Your task to perform on an android device: change the clock display to digital Image 0: 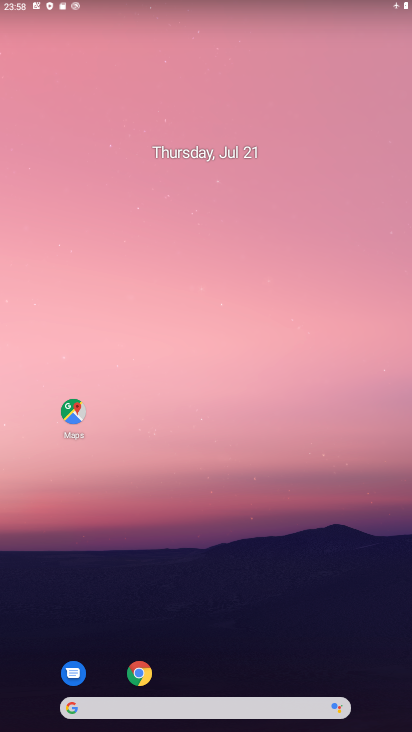
Step 0: drag from (241, 646) to (241, 166)
Your task to perform on an android device: change the clock display to digital Image 1: 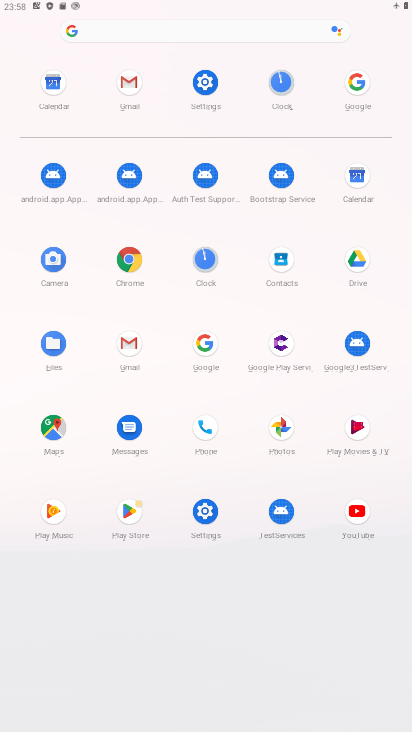
Step 1: click (267, 98)
Your task to perform on an android device: change the clock display to digital Image 2: 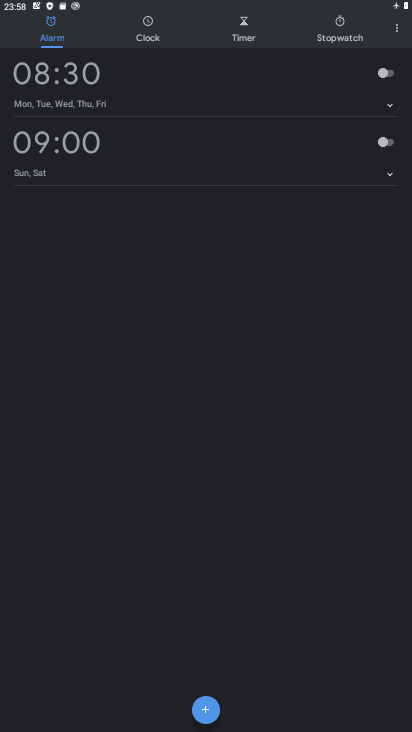
Step 2: click (392, 39)
Your task to perform on an android device: change the clock display to digital Image 3: 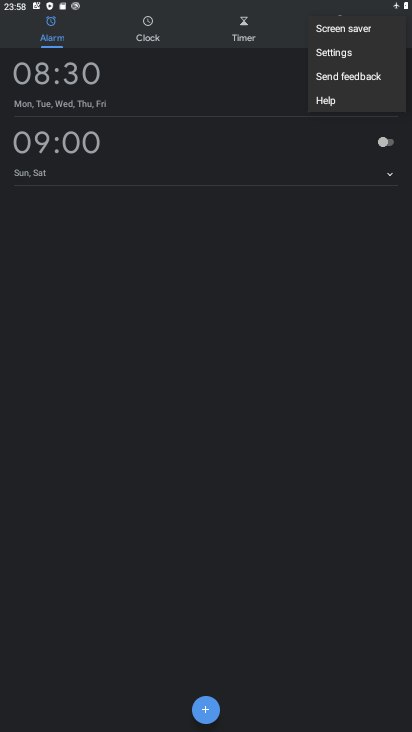
Step 3: click (329, 53)
Your task to perform on an android device: change the clock display to digital Image 4: 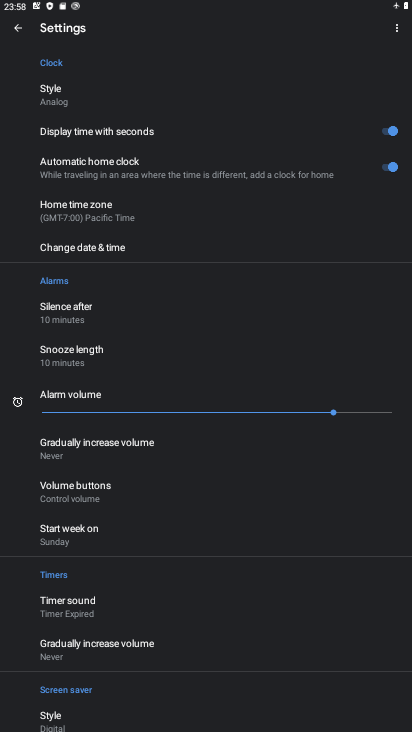
Step 4: click (73, 110)
Your task to perform on an android device: change the clock display to digital Image 5: 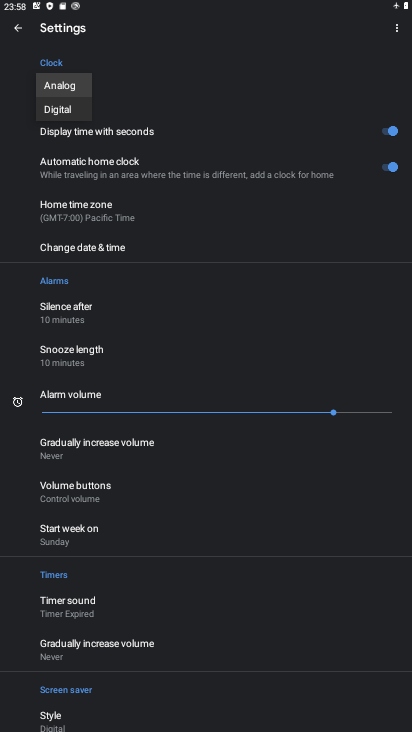
Step 5: click (73, 110)
Your task to perform on an android device: change the clock display to digital Image 6: 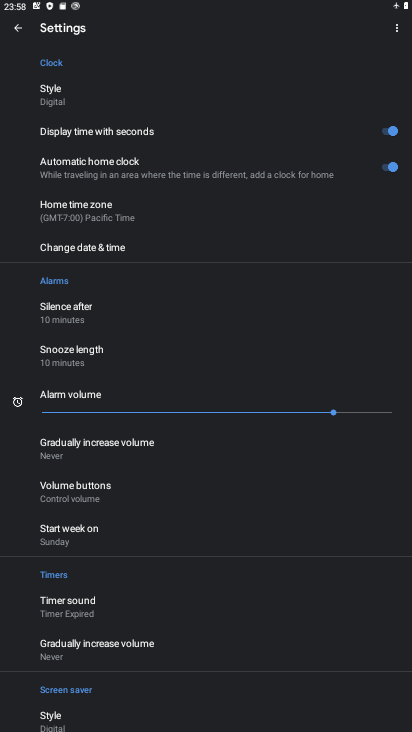
Step 6: task complete